Your task to perform on an android device: Open internet settings Image 0: 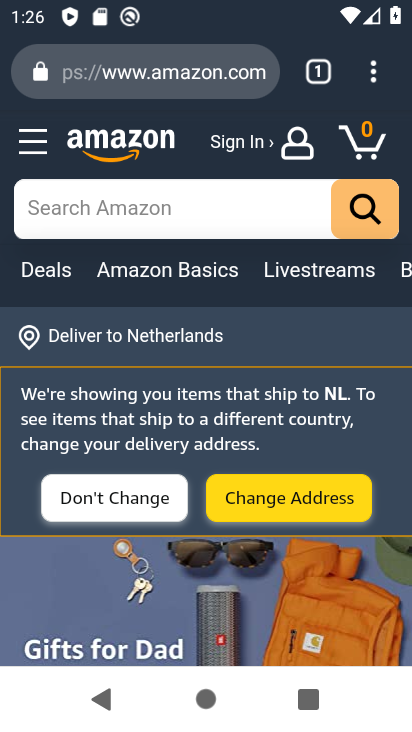
Step 0: press home button
Your task to perform on an android device: Open internet settings Image 1: 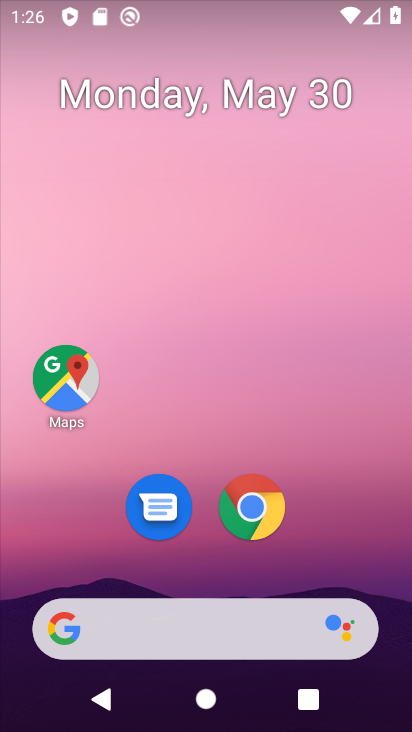
Step 1: drag from (220, 563) to (156, 47)
Your task to perform on an android device: Open internet settings Image 2: 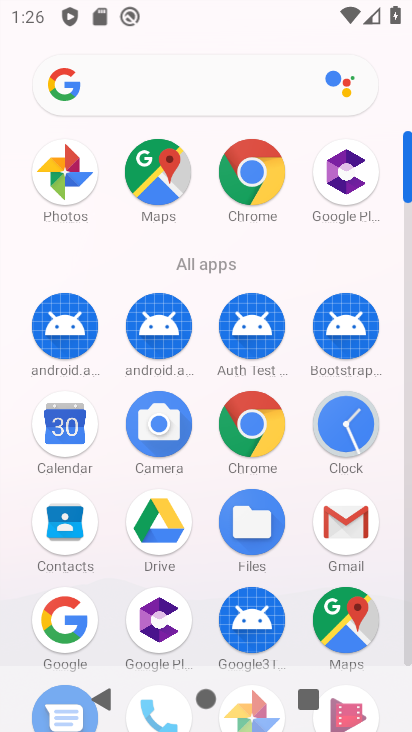
Step 2: drag from (255, 581) to (255, 236)
Your task to perform on an android device: Open internet settings Image 3: 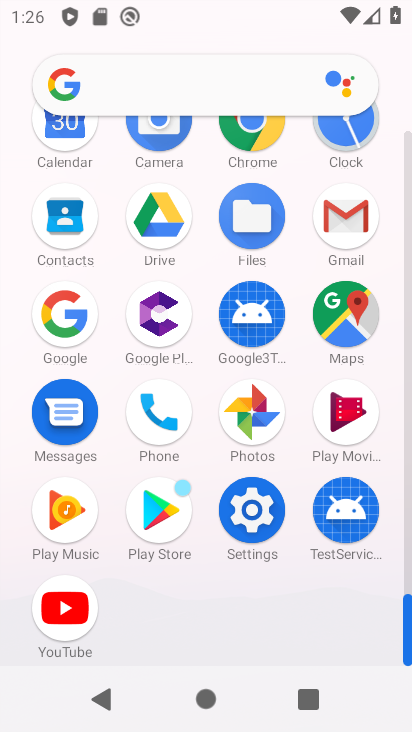
Step 3: click (250, 504)
Your task to perform on an android device: Open internet settings Image 4: 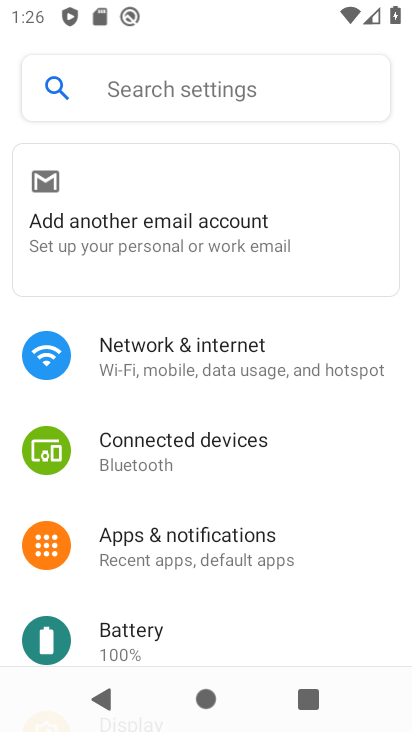
Step 4: click (125, 389)
Your task to perform on an android device: Open internet settings Image 5: 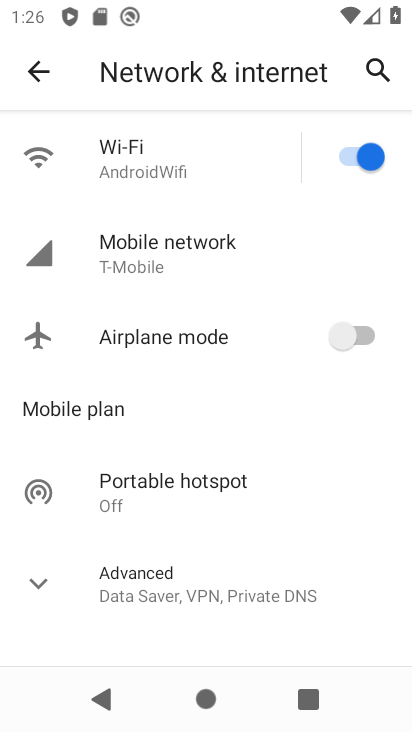
Step 5: task complete